Your task to perform on an android device: turn off notifications settings in the gmail app Image 0: 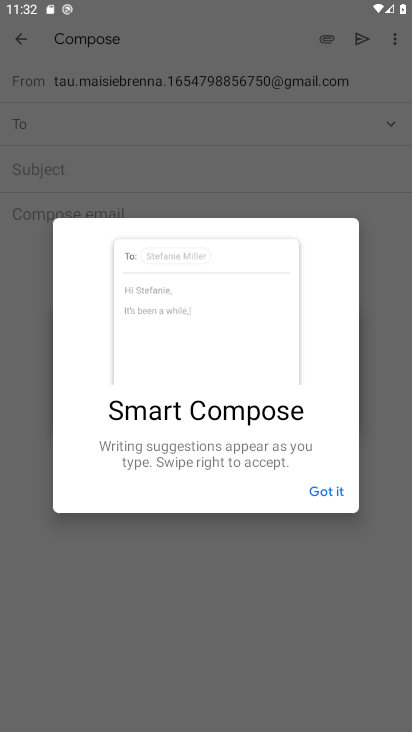
Step 0: press home button
Your task to perform on an android device: turn off notifications settings in the gmail app Image 1: 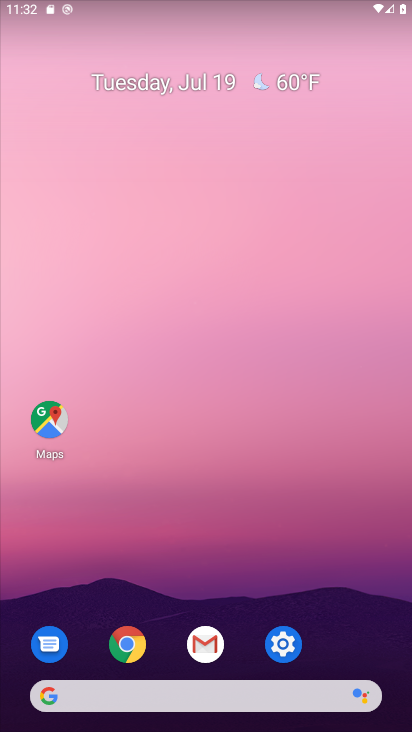
Step 1: click (197, 634)
Your task to perform on an android device: turn off notifications settings in the gmail app Image 2: 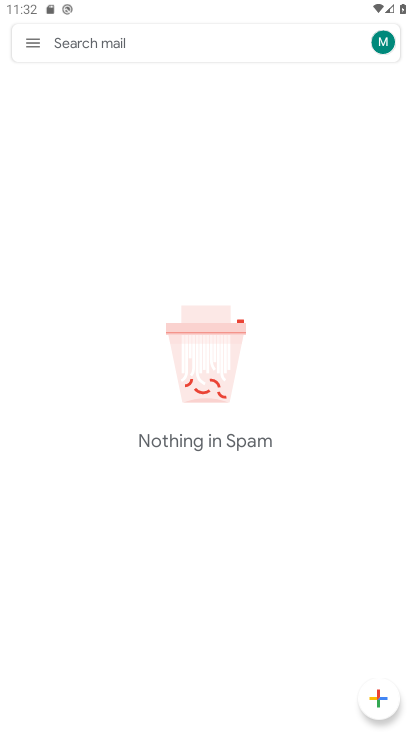
Step 2: click (32, 46)
Your task to perform on an android device: turn off notifications settings in the gmail app Image 3: 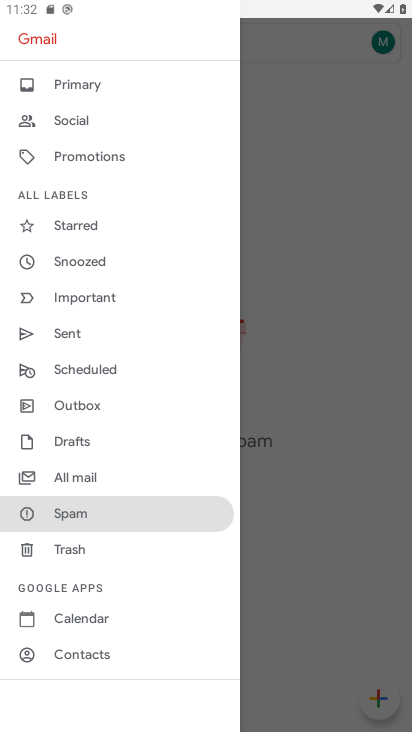
Step 3: drag from (78, 560) to (106, 489)
Your task to perform on an android device: turn off notifications settings in the gmail app Image 4: 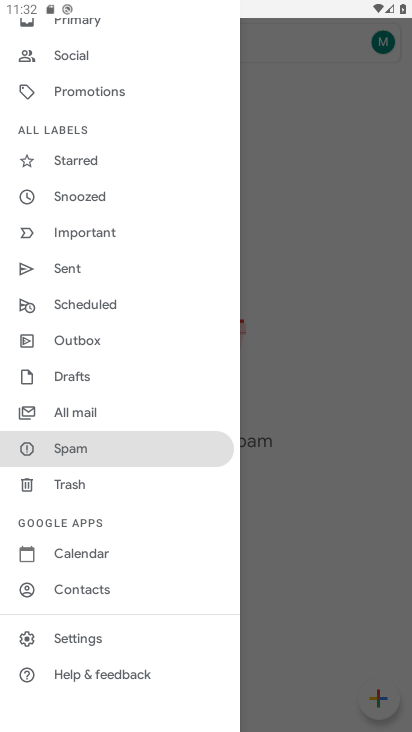
Step 4: click (59, 642)
Your task to perform on an android device: turn off notifications settings in the gmail app Image 5: 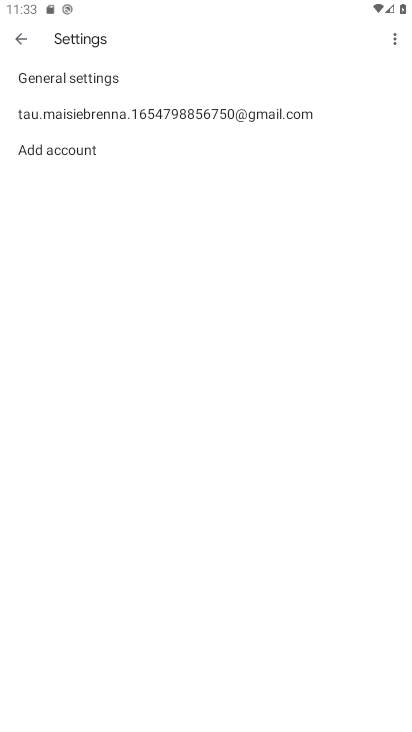
Step 5: click (118, 109)
Your task to perform on an android device: turn off notifications settings in the gmail app Image 6: 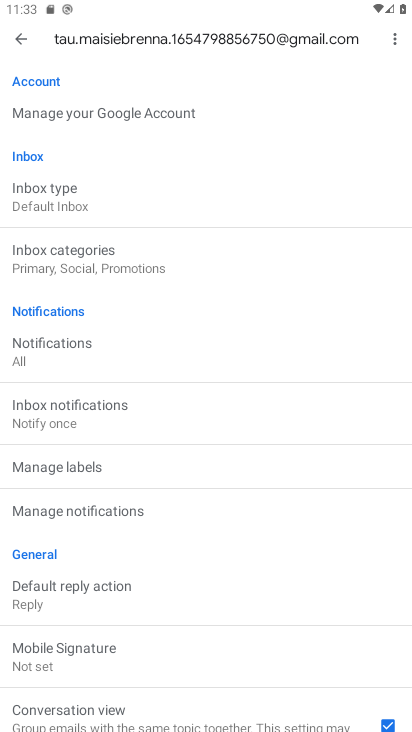
Step 6: click (41, 350)
Your task to perform on an android device: turn off notifications settings in the gmail app Image 7: 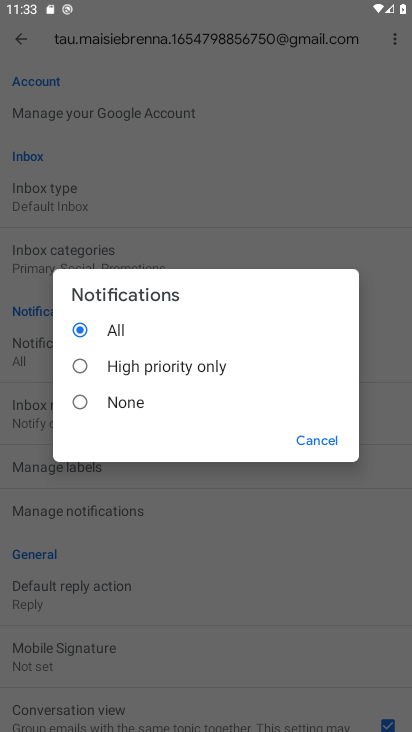
Step 7: click (115, 405)
Your task to perform on an android device: turn off notifications settings in the gmail app Image 8: 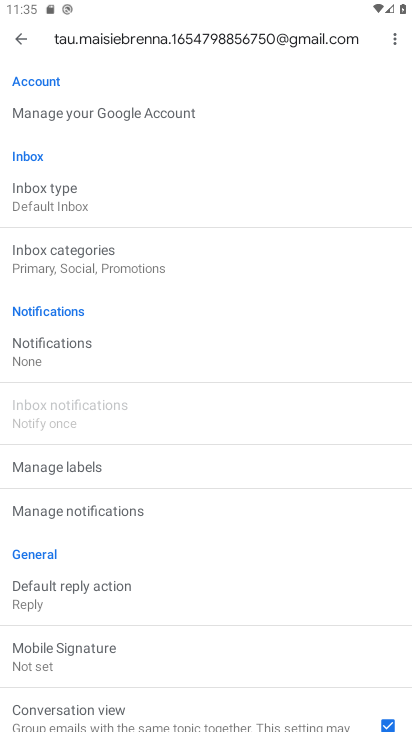
Step 8: task complete